Your task to perform on an android device: Turn on the flashlight Image 0: 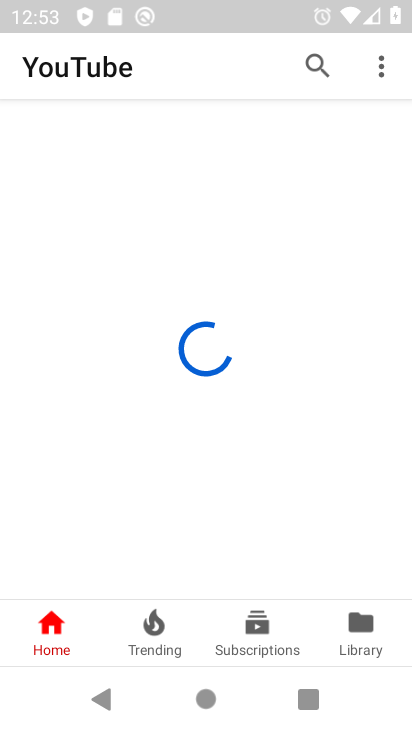
Step 0: drag from (257, 513) to (409, 328)
Your task to perform on an android device: Turn on the flashlight Image 1: 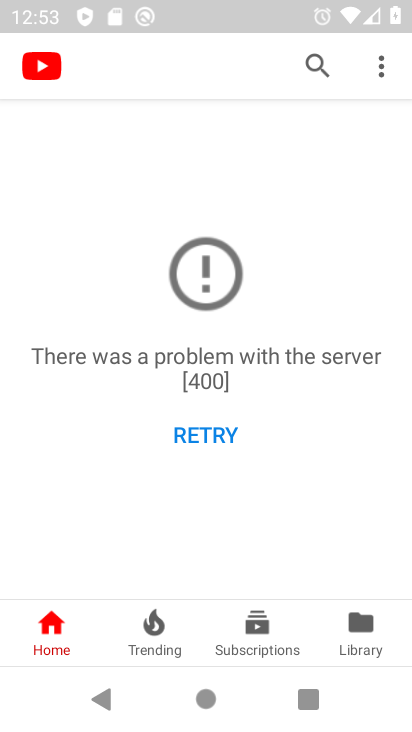
Step 1: task complete